Your task to perform on an android device: Find coffee shops on Maps Image 0: 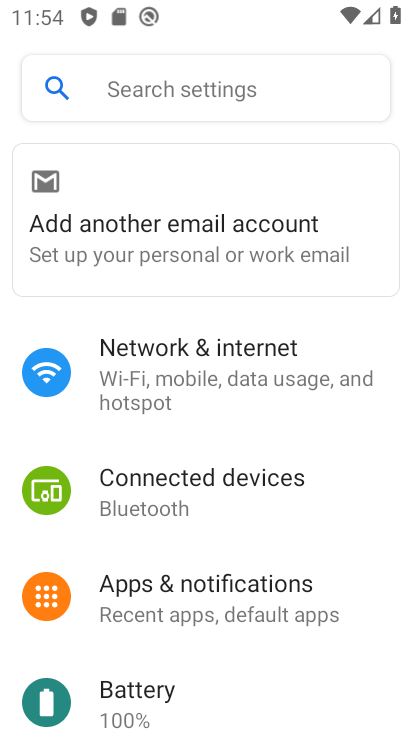
Step 0: press home button
Your task to perform on an android device: Find coffee shops on Maps Image 1: 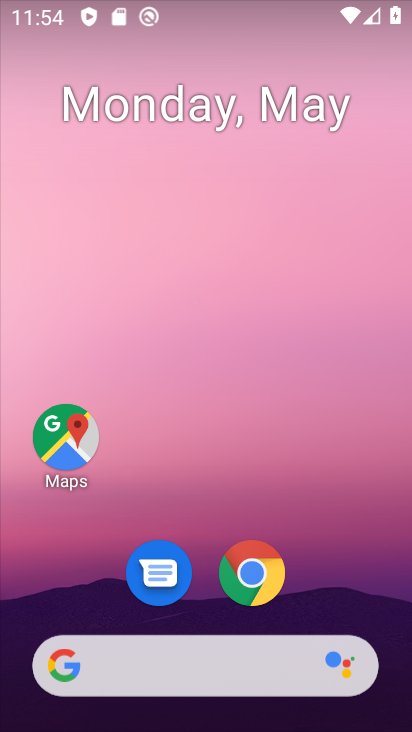
Step 1: click (49, 439)
Your task to perform on an android device: Find coffee shops on Maps Image 2: 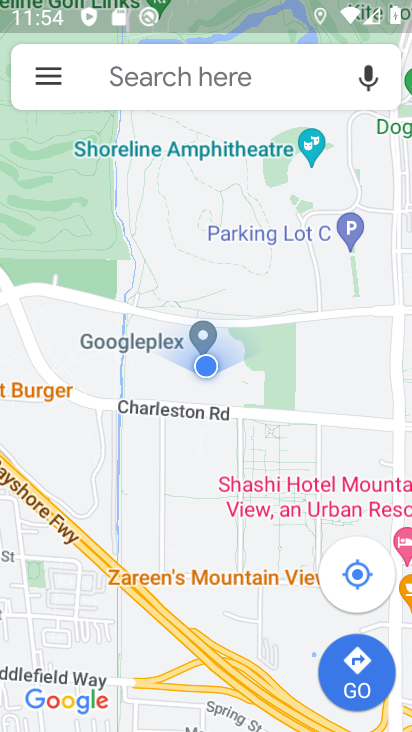
Step 2: click (192, 90)
Your task to perform on an android device: Find coffee shops on Maps Image 3: 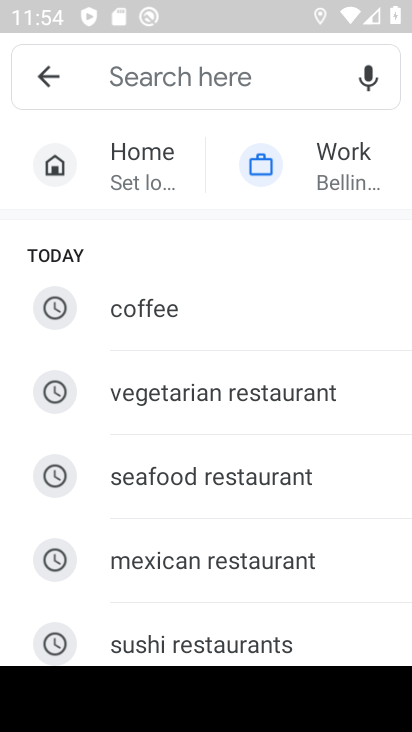
Step 3: type "coffee shops"
Your task to perform on an android device: Find coffee shops on Maps Image 4: 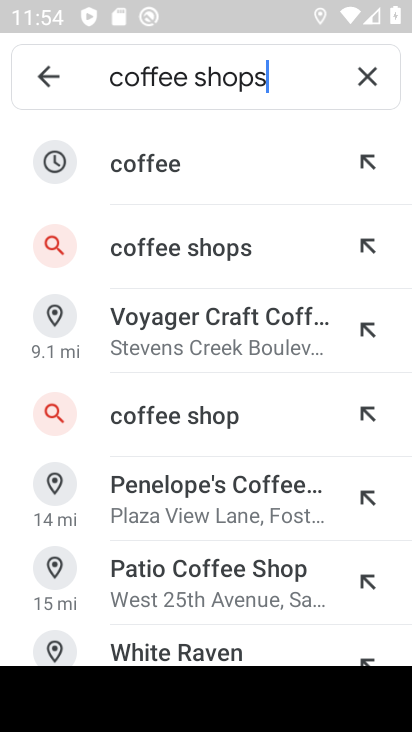
Step 4: click (165, 242)
Your task to perform on an android device: Find coffee shops on Maps Image 5: 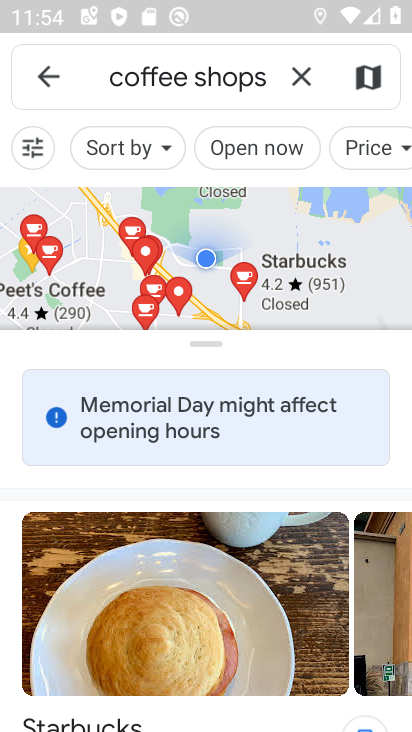
Step 5: task complete